Your task to perform on an android device: uninstall "PUBG MOBILE" Image 0: 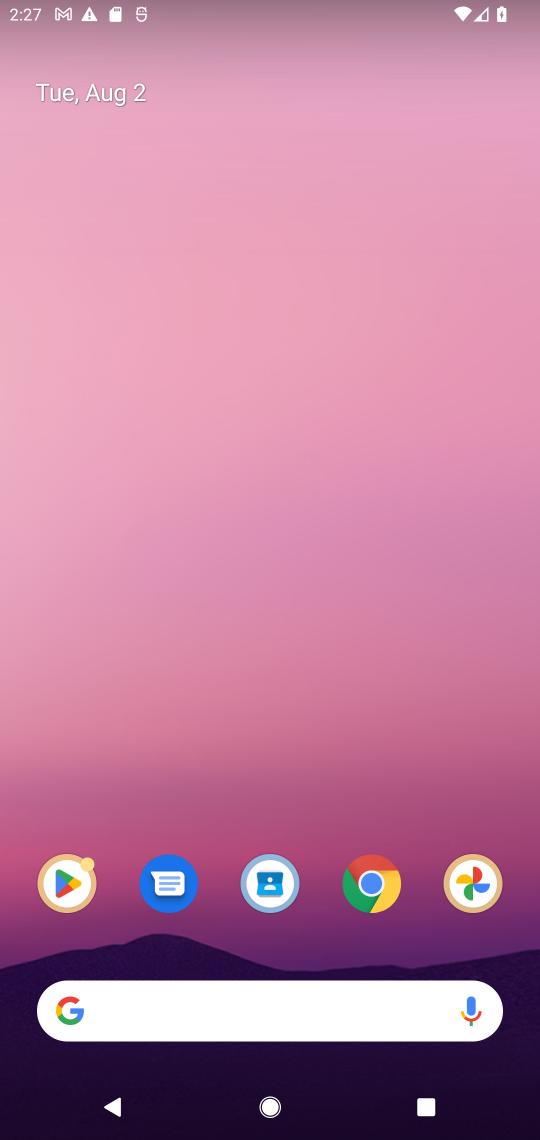
Step 0: click (92, 887)
Your task to perform on an android device: uninstall "PUBG MOBILE" Image 1: 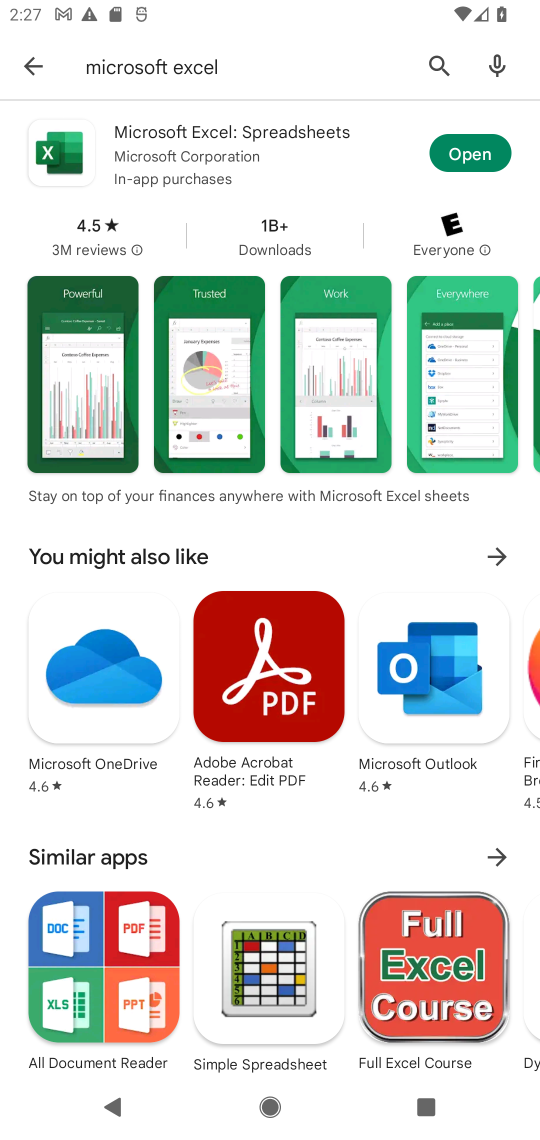
Step 1: click (446, 72)
Your task to perform on an android device: uninstall "PUBG MOBILE" Image 2: 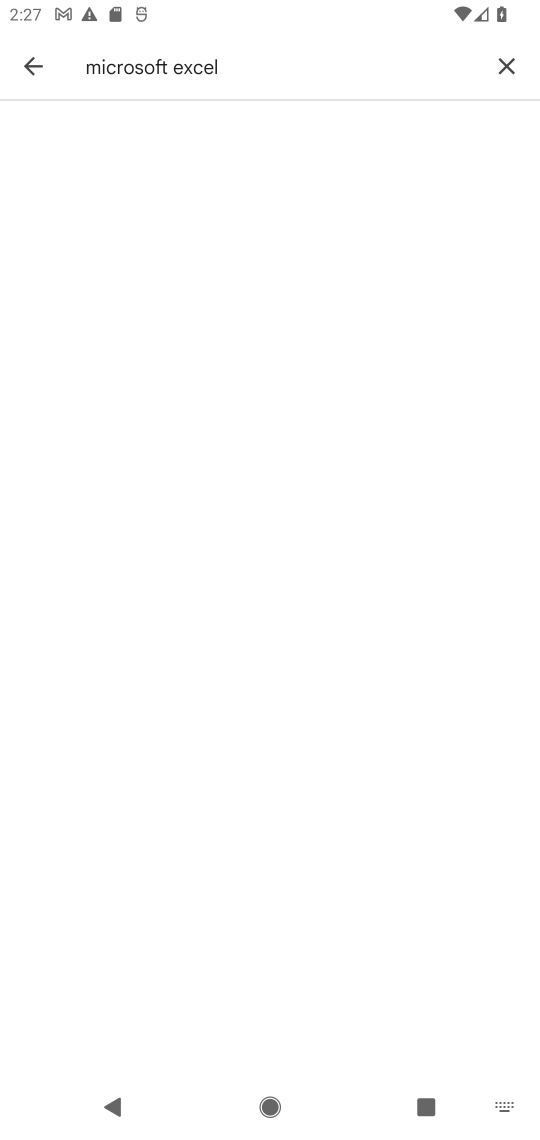
Step 2: click (521, 60)
Your task to perform on an android device: uninstall "PUBG MOBILE" Image 3: 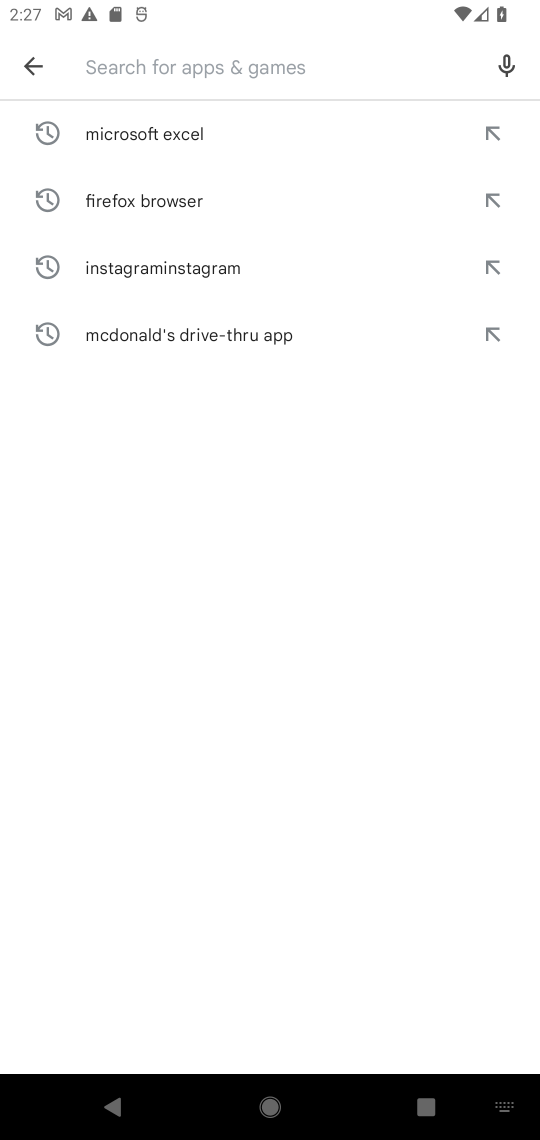
Step 3: type "PUBG MOBILE"
Your task to perform on an android device: uninstall "PUBG MOBILE" Image 4: 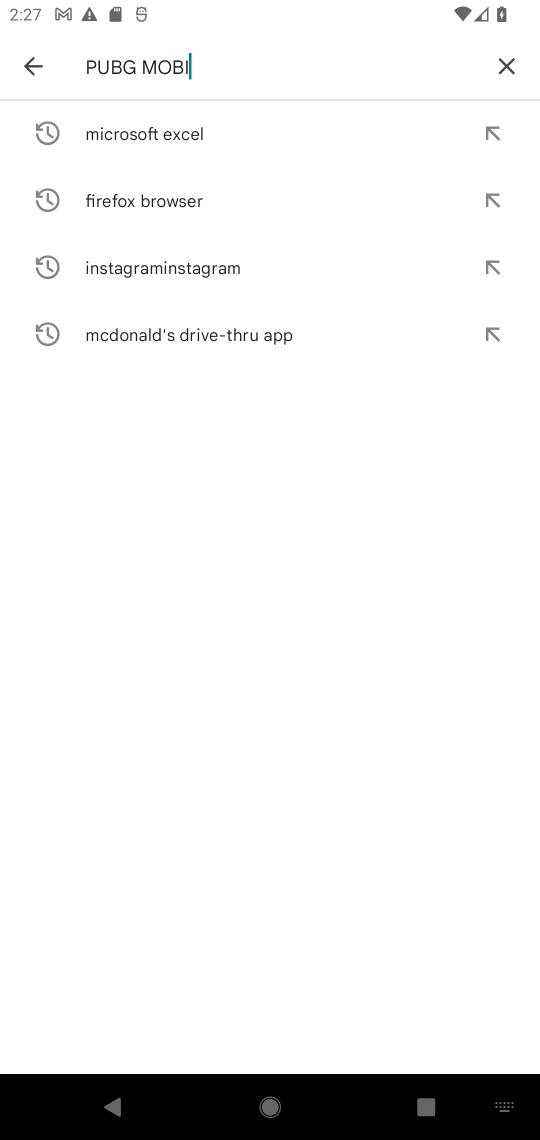
Step 4: type ""
Your task to perform on an android device: uninstall "PUBG MOBILE" Image 5: 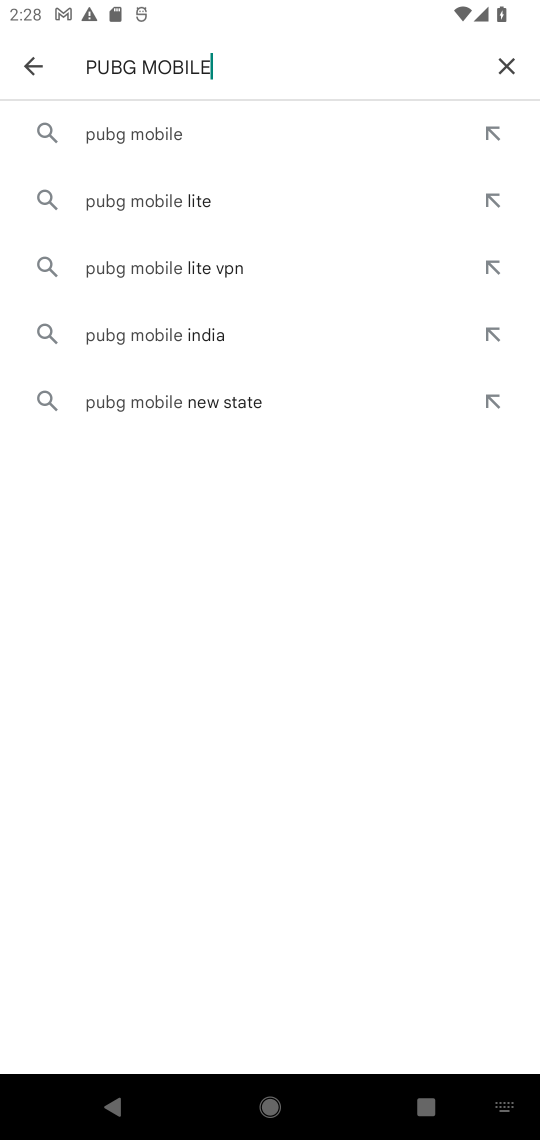
Step 5: click (130, 129)
Your task to perform on an android device: uninstall "PUBG MOBILE" Image 6: 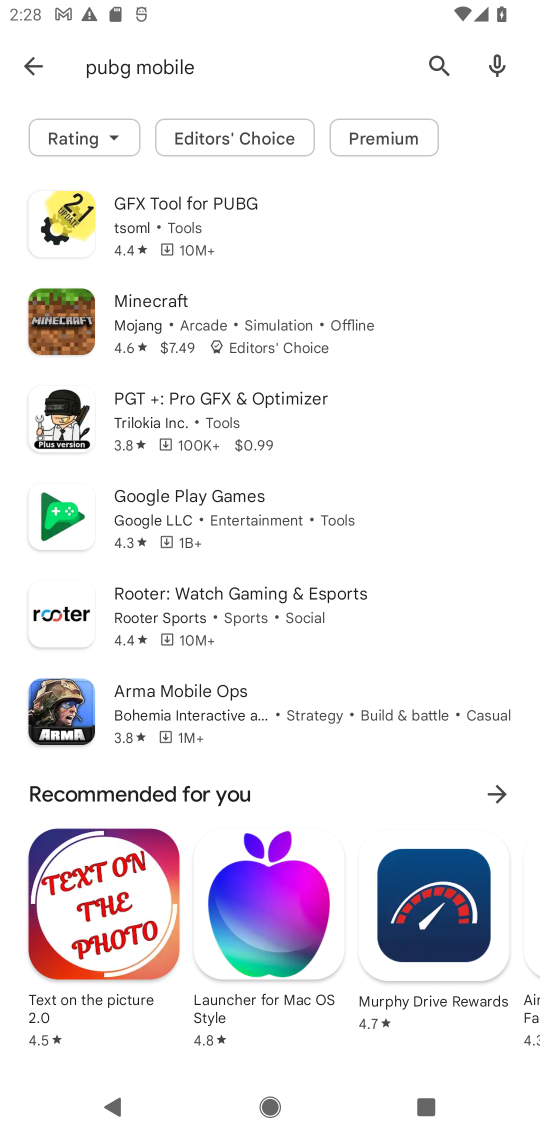
Step 6: task complete